Your task to perform on an android device: turn on showing notifications on the lock screen Image 0: 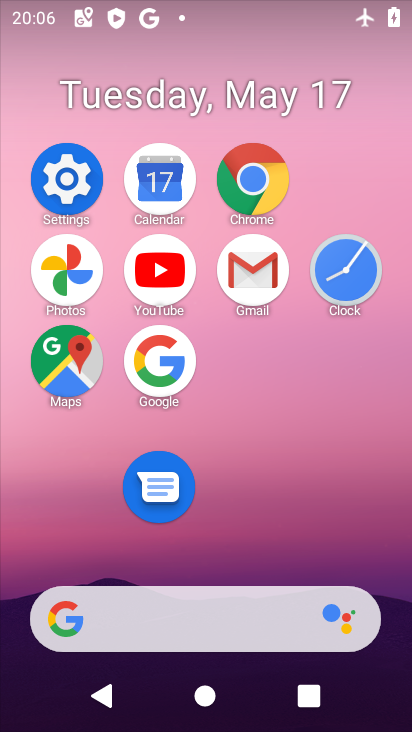
Step 0: click (61, 169)
Your task to perform on an android device: turn on showing notifications on the lock screen Image 1: 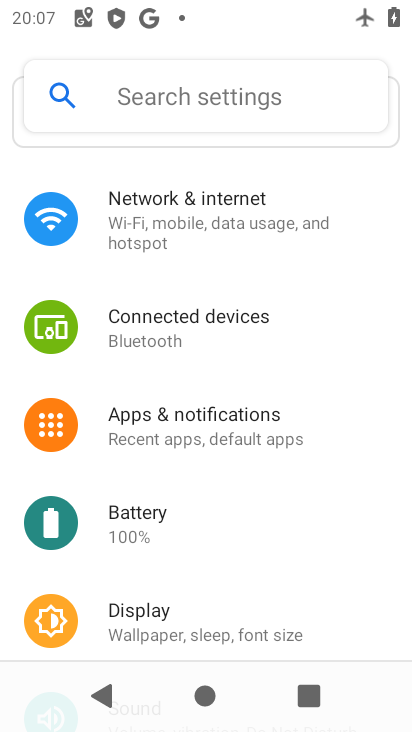
Step 1: click (264, 447)
Your task to perform on an android device: turn on showing notifications on the lock screen Image 2: 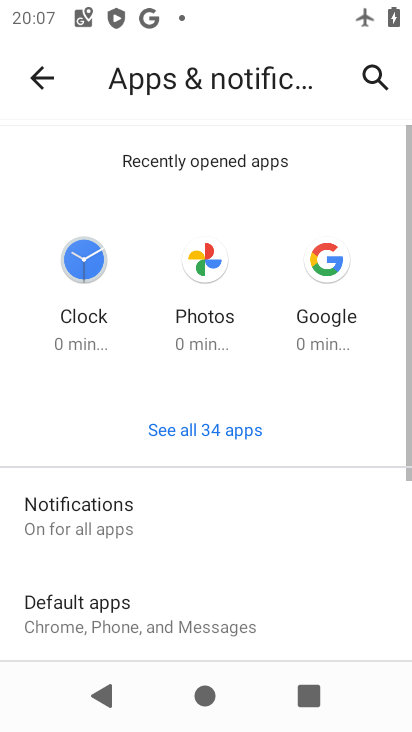
Step 2: click (95, 495)
Your task to perform on an android device: turn on showing notifications on the lock screen Image 3: 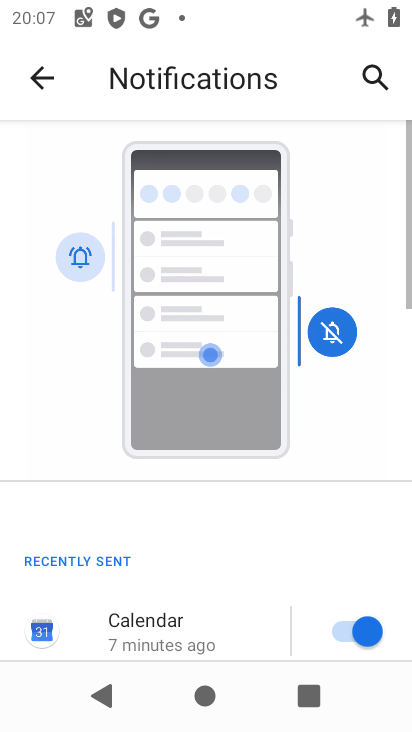
Step 3: drag from (163, 529) to (191, 98)
Your task to perform on an android device: turn on showing notifications on the lock screen Image 4: 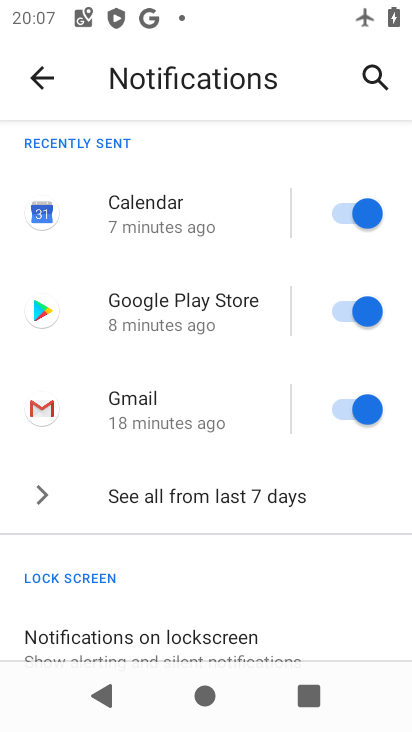
Step 4: click (195, 654)
Your task to perform on an android device: turn on showing notifications on the lock screen Image 5: 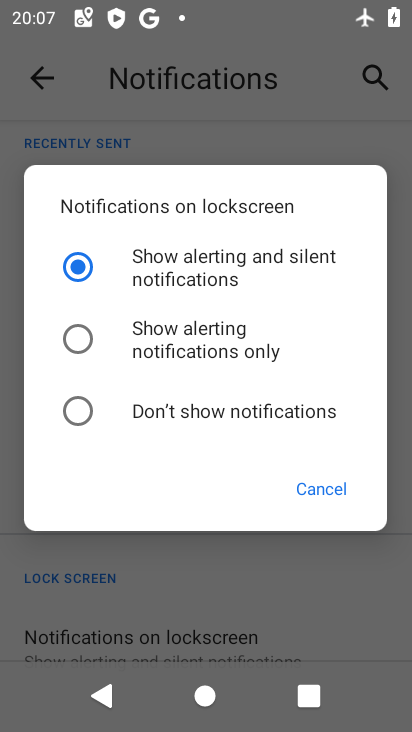
Step 5: task complete